Your task to perform on an android device: Open location settings Image 0: 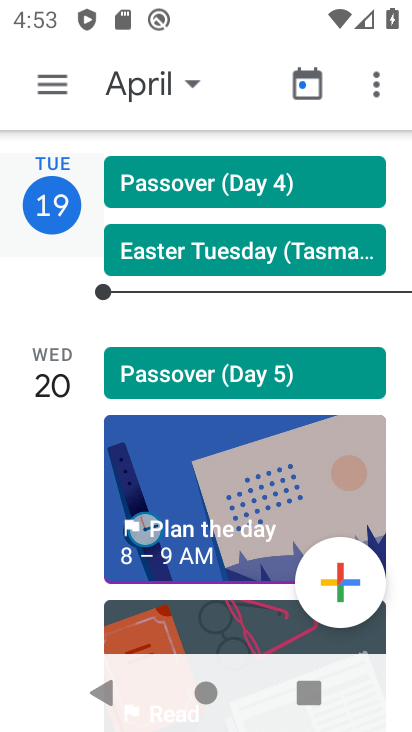
Step 0: press home button
Your task to perform on an android device: Open location settings Image 1: 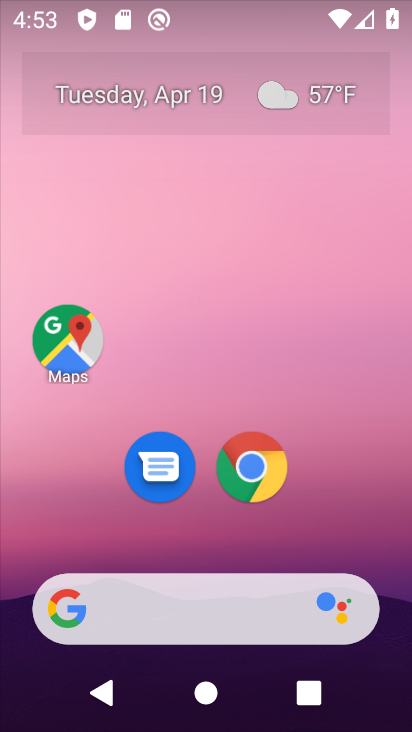
Step 1: drag from (176, 520) to (176, 13)
Your task to perform on an android device: Open location settings Image 2: 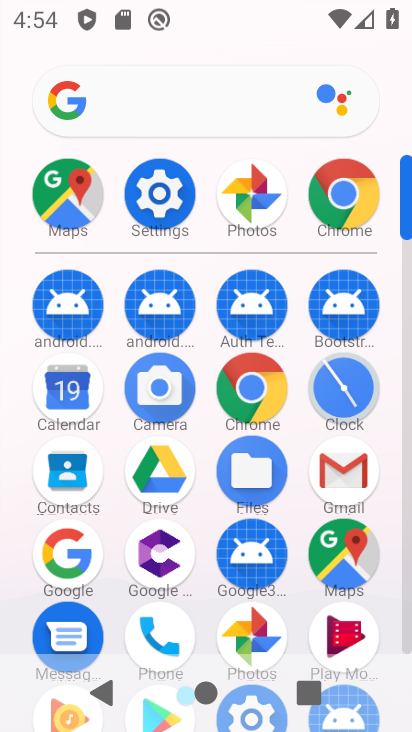
Step 2: click (179, 209)
Your task to perform on an android device: Open location settings Image 3: 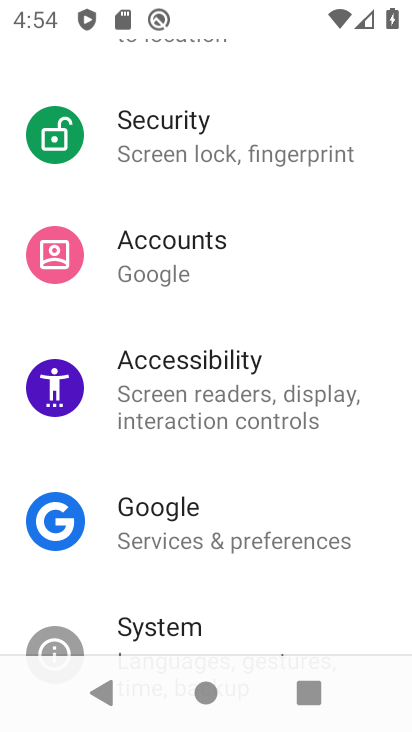
Step 3: click (214, 429)
Your task to perform on an android device: Open location settings Image 4: 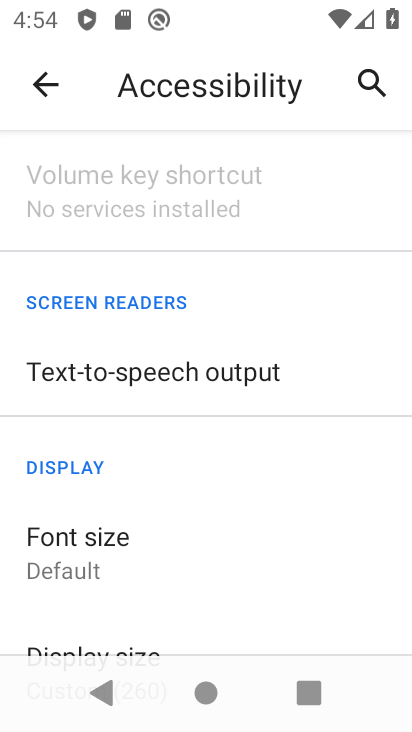
Step 4: click (43, 88)
Your task to perform on an android device: Open location settings Image 5: 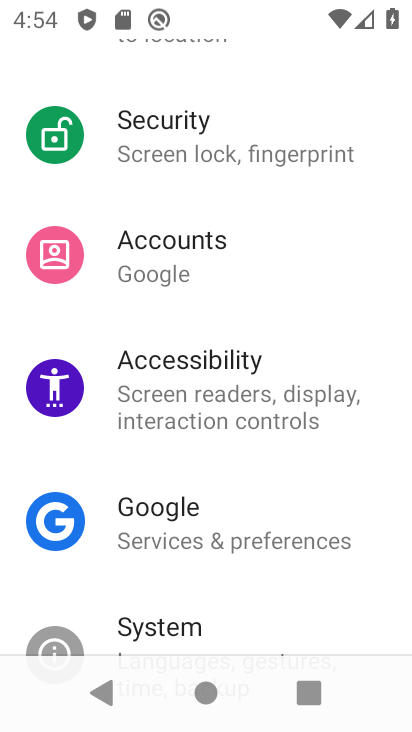
Step 5: drag from (178, 185) to (301, 544)
Your task to perform on an android device: Open location settings Image 6: 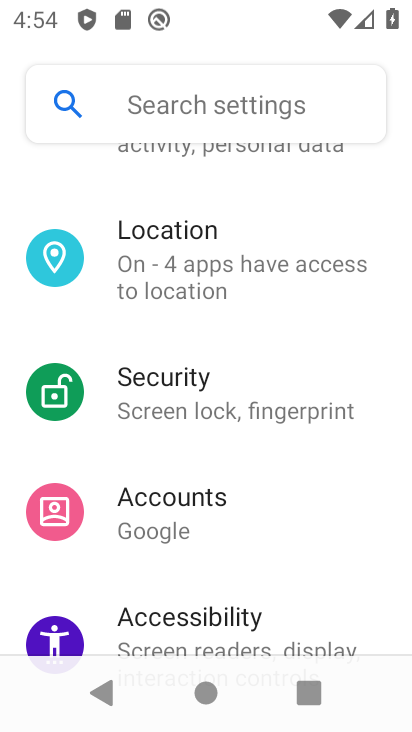
Step 6: click (247, 274)
Your task to perform on an android device: Open location settings Image 7: 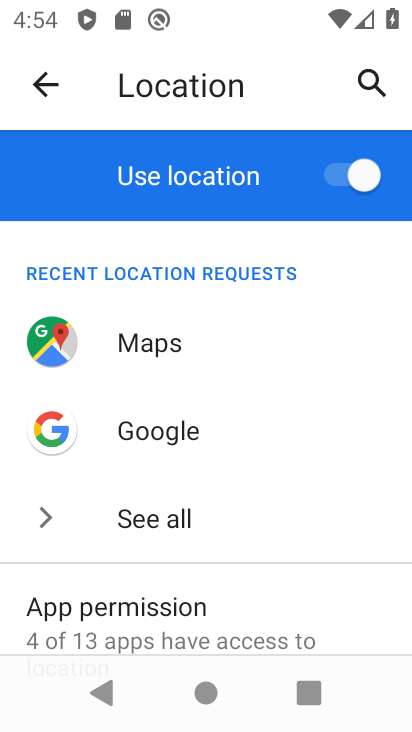
Step 7: task complete